Your task to perform on an android device: turn notification dots on Image 0: 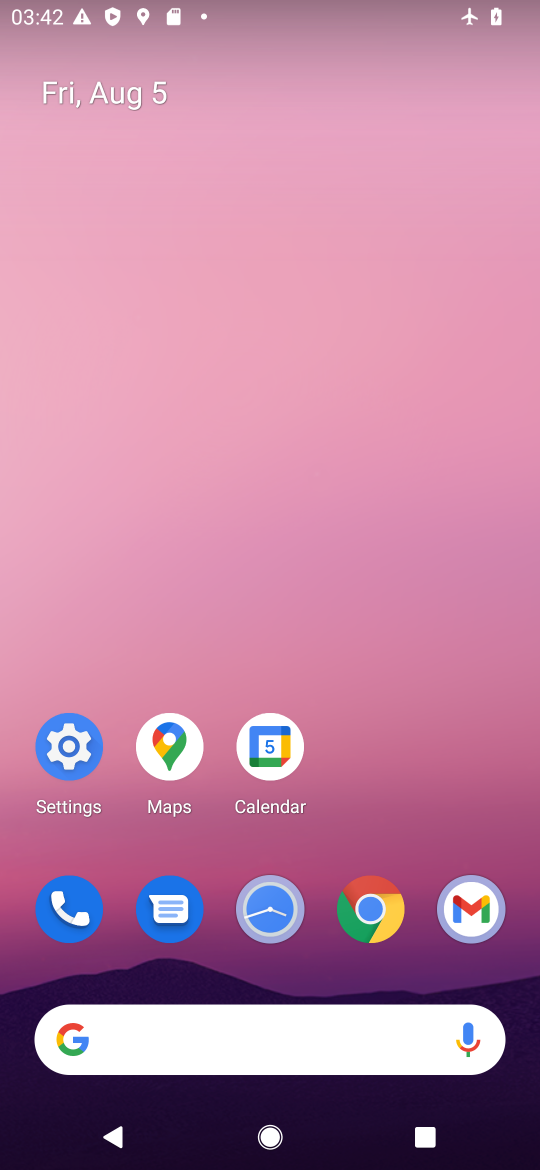
Step 0: press home button
Your task to perform on an android device: turn notification dots on Image 1: 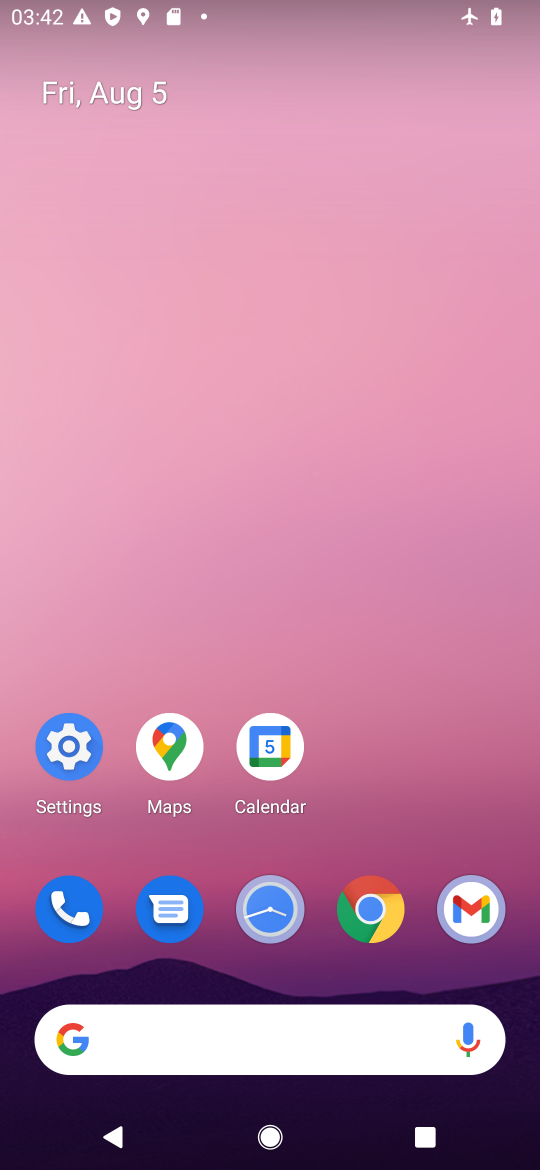
Step 1: click (75, 747)
Your task to perform on an android device: turn notification dots on Image 2: 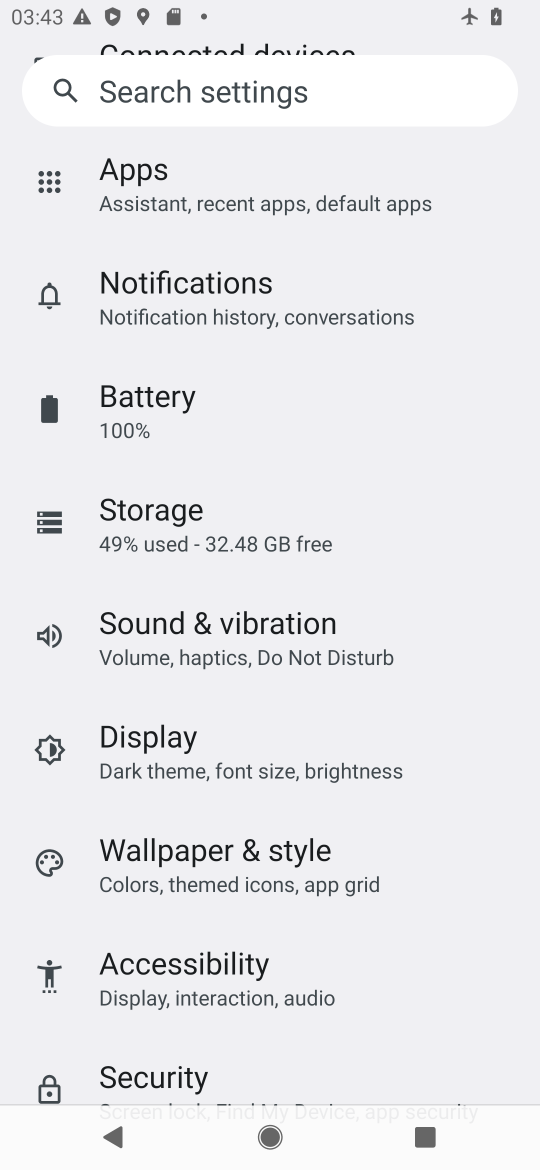
Step 2: click (200, 284)
Your task to perform on an android device: turn notification dots on Image 3: 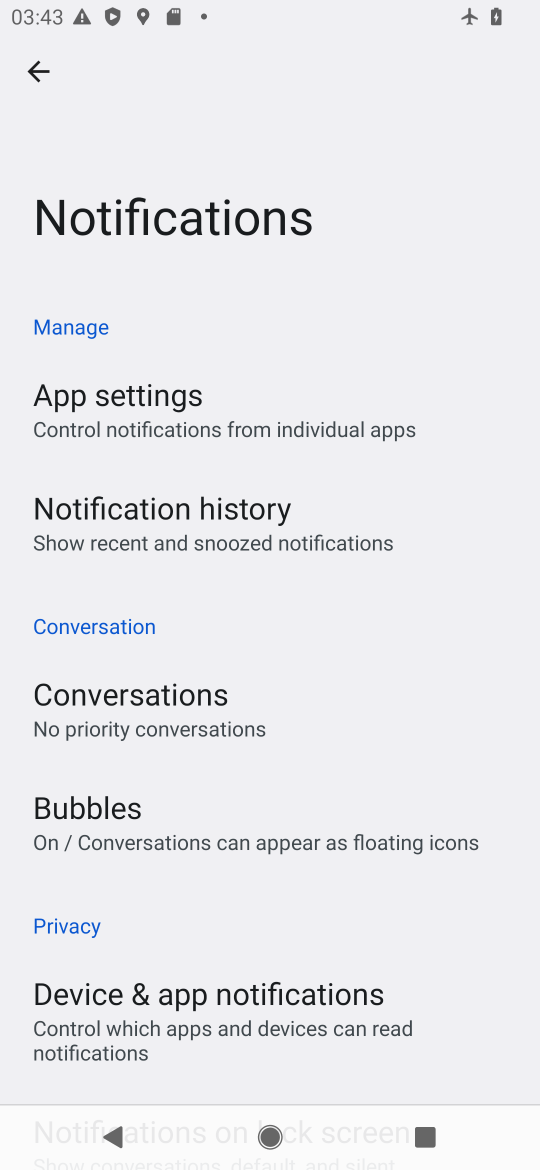
Step 3: drag from (333, 949) to (406, 412)
Your task to perform on an android device: turn notification dots on Image 4: 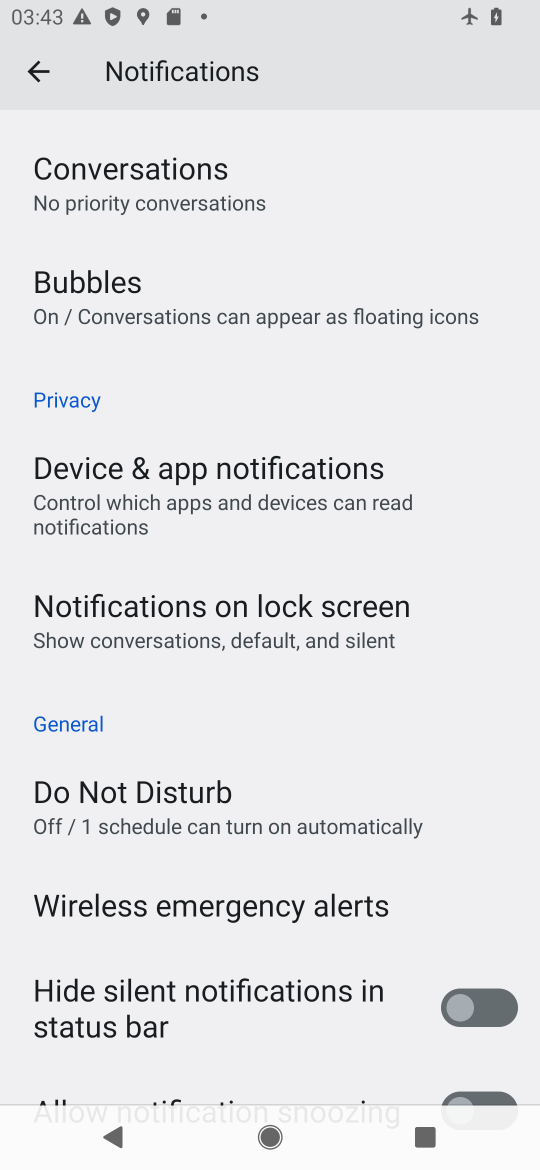
Step 4: drag from (355, 767) to (355, 436)
Your task to perform on an android device: turn notification dots on Image 5: 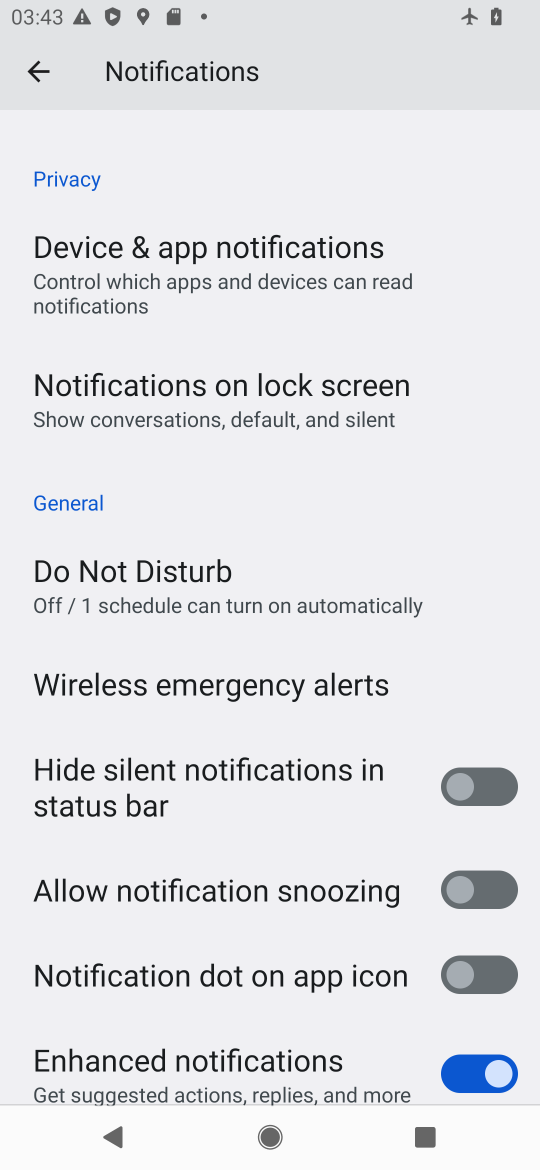
Step 5: click (455, 960)
Your task to perform on an android device: turn notification dots on Image 6: 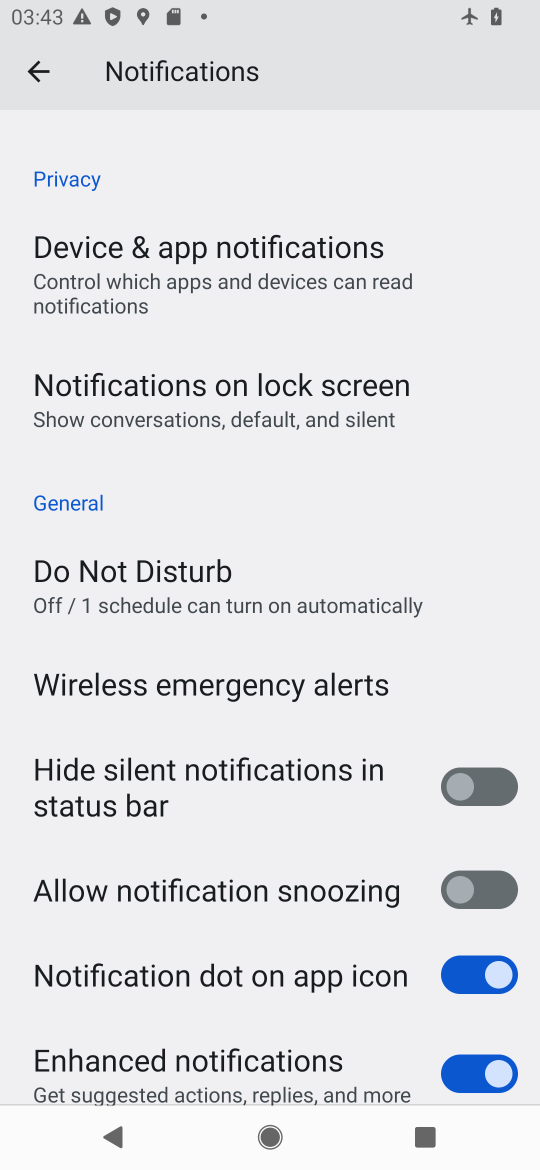
Step 6: task complete